Your task to perform on an android device: Open calendar and show me the fourth week of next month Image 0: 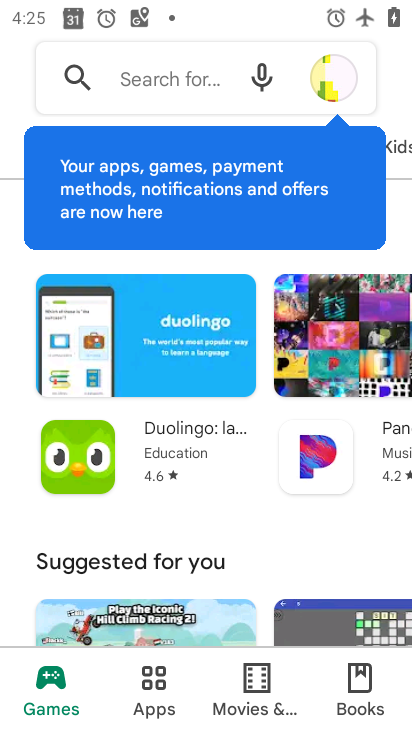
Step 0: press home button
Your task to perform on an android device: Open calendar and show me the fourth week of next month Image 1: 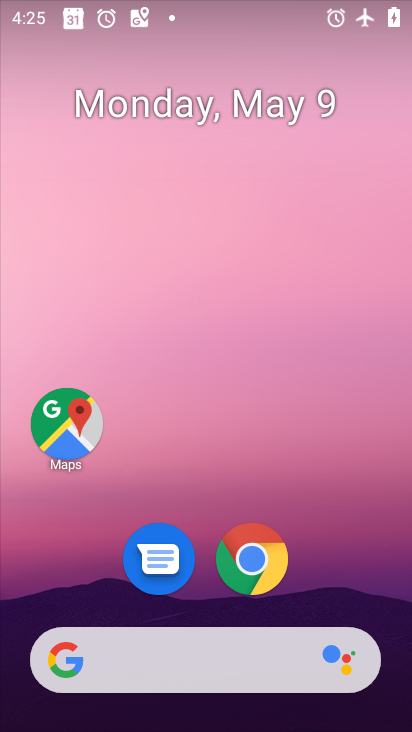
Step 1: drag from (186, 721) to (200, 206)
Your task to perform on an android device: Open calendar and show me the fourth week of next month Image 2: 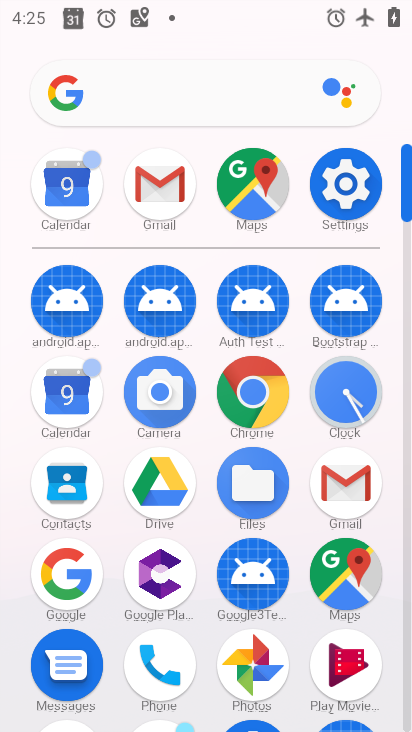
Step 2: click (67, 406)
Your task to perform on an android device: Open calendar and show me the fourth week of next month Image 3: 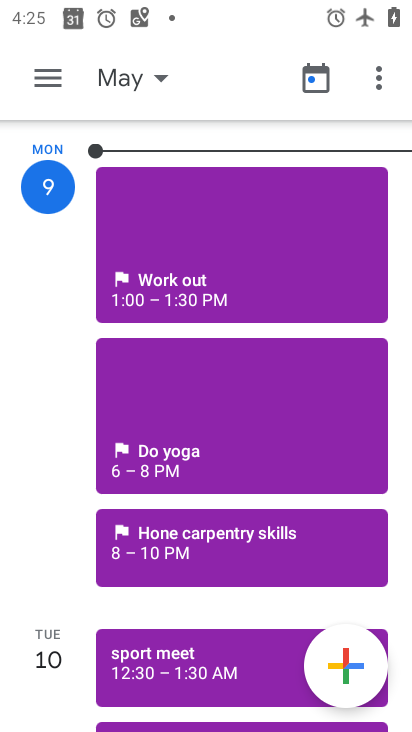
Step 3: click (120, 77)
Your task to perform on an android device: Open calendar and show me the fourth week of next month Image 4: 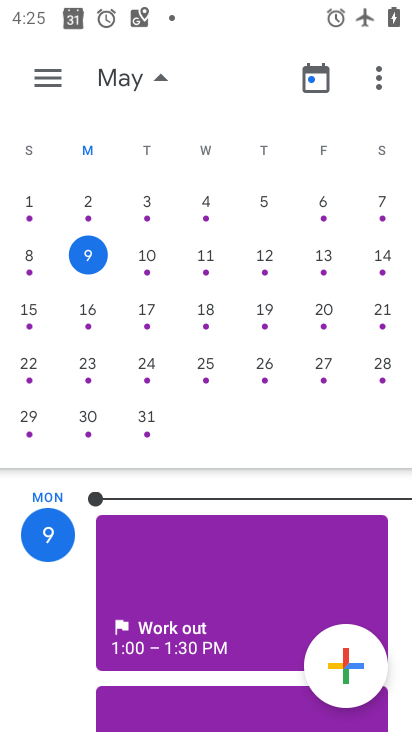
Step 4: drag from (353, 324) to (8, 288)
Your task to perform on an android device: Open calendar and show me the fourth week of next month Image 5: 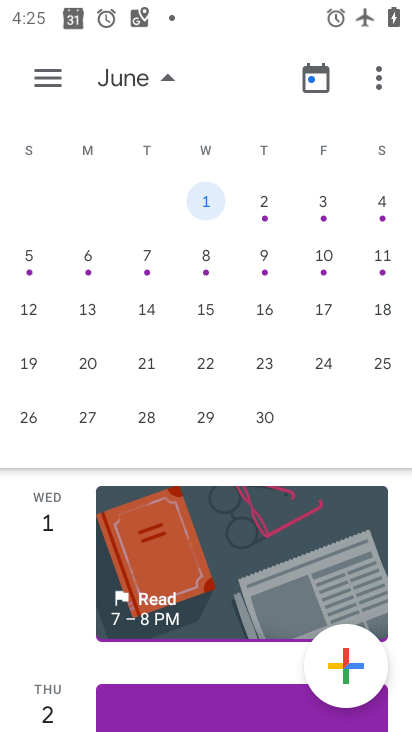
Step 5: click (89, 414)
Your task to perform on an android device: Open calendar and show me the fourth week of next month Image 6: 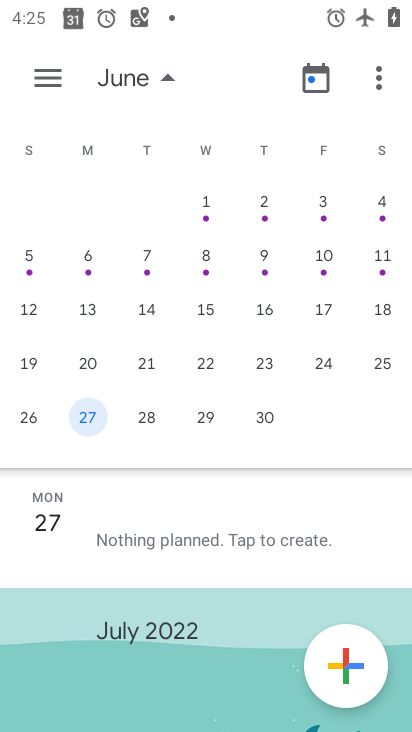
Step 6: task complete